Your task to perform on an android device: Open accessibility settings Image 0: 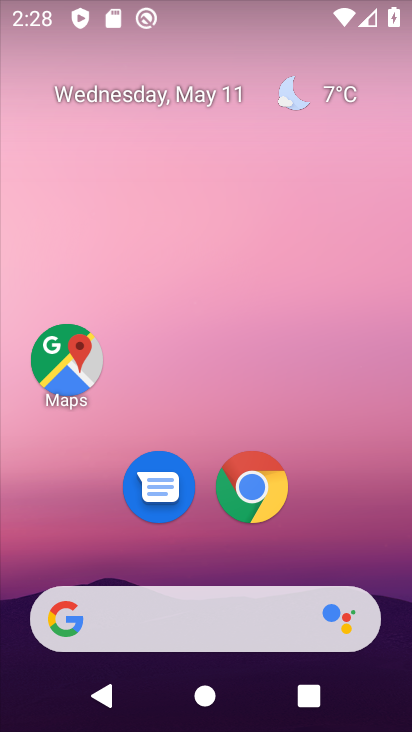
Step 0: drag from (184, 500) to (271, 11)
Your task to perform on an android device: Open accessibility settings Image 1: 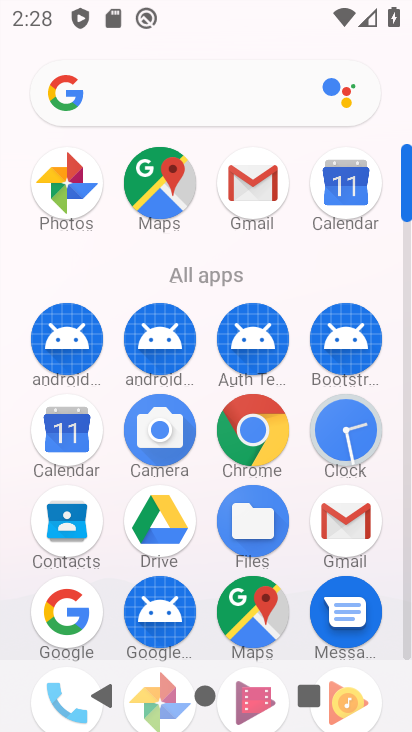
Step 1: drag from (200, 581) to (310, 147)
Your task to perform on an android device: Open accessibility settings Image 2: 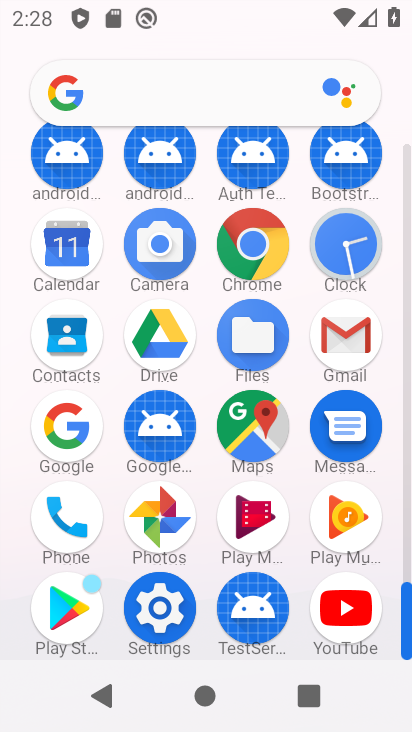
Step 2: click (167, 610)
Your task to perform on an android device: Open accessibility settings Image 3: 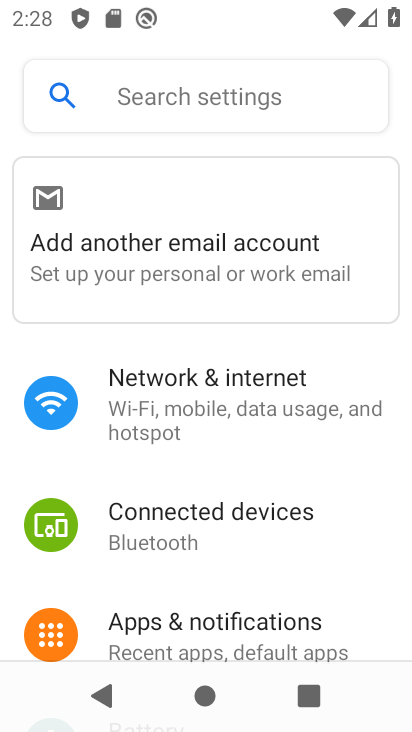
Step 3: drag from (209, 633) to (301, 137)
Your task to perform on an android device: Open accessibility settings Image 4: 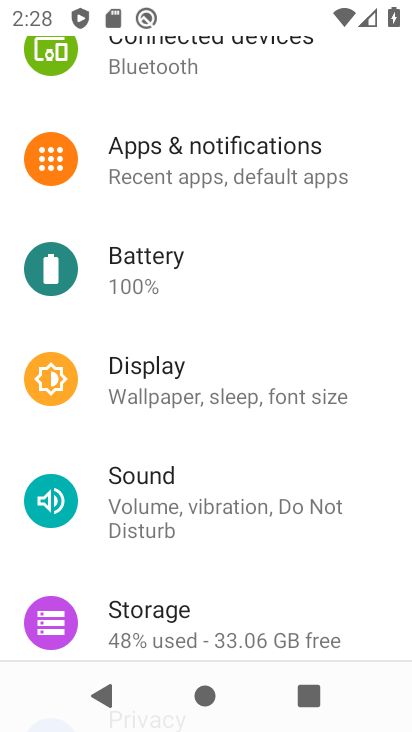
Step 4: drag from (199, 548) to (290, 6)
Your task to perform on an android device: Open accessibility settings Image 5: 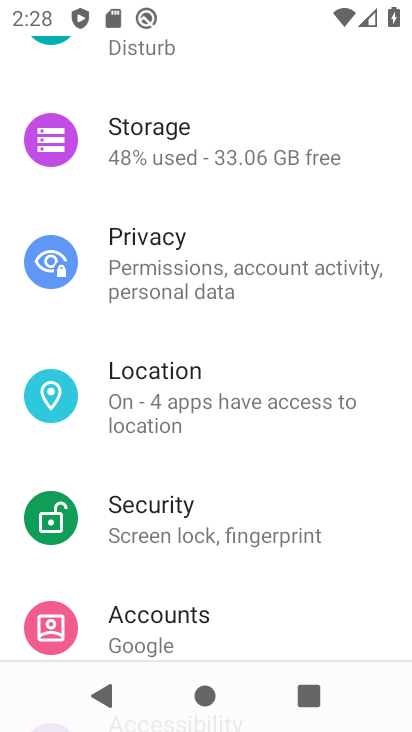
Step 5: drag from (219, 595) to (301, 34)
Your task to perform on an android device: Open accessibility settings Image 6: 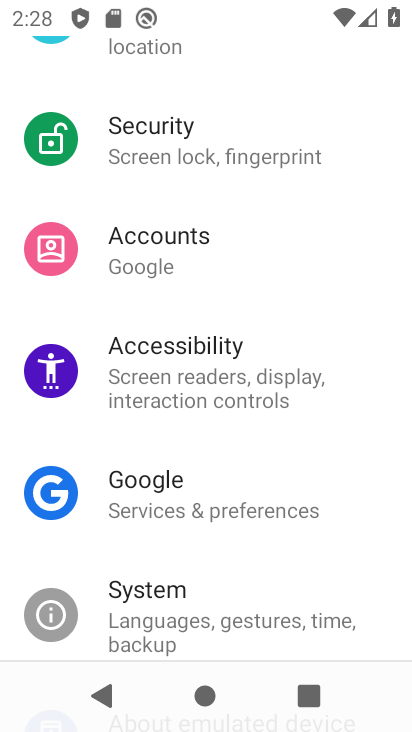
Step 6: click (149, 348)
Your task to perform on an android device: Open accessibility settings Image 7: 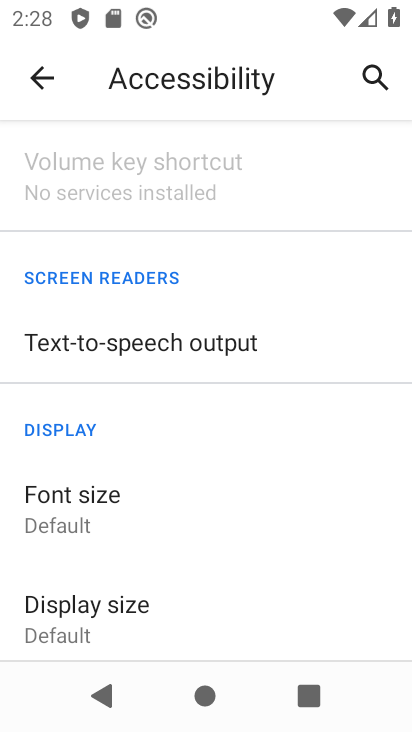
Step 7: task complete